Your task to perform on an android device: allow cookies in the chrome app Image 0: 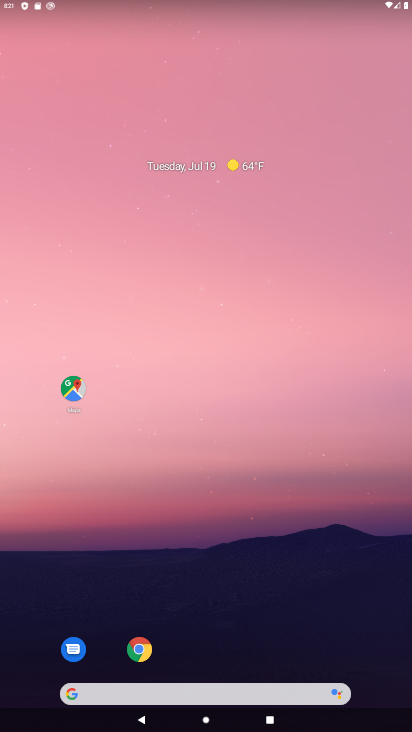
Step 0: click (149, 652)
Your task to perform on an android device: allow cookies in the chrome app Image 1: 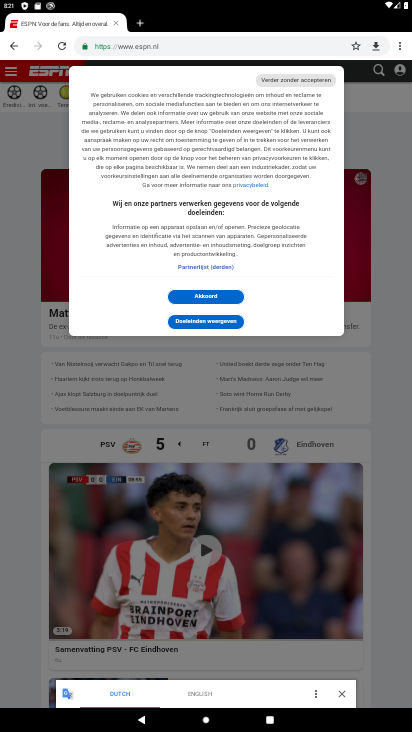
Step 1: click (222, 292)
Your task to perform on an android device: allow cookies in the chrome app Image 2: 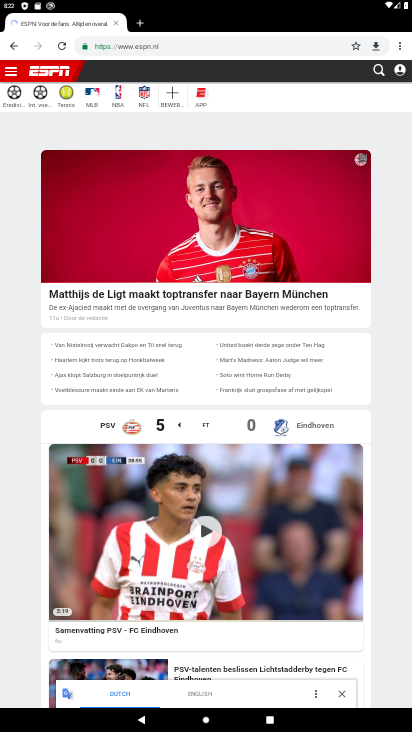
Step 2: click (398, 41)
Your task to perform on an android device: allow cookies in the chrome app Image 3: 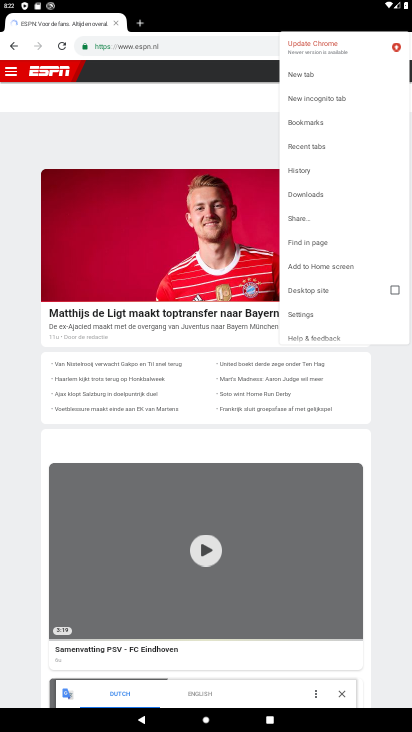
Step 3: click (315, 310)
Your task to perform on an android device: allow cookies in the chrome app Image 4: 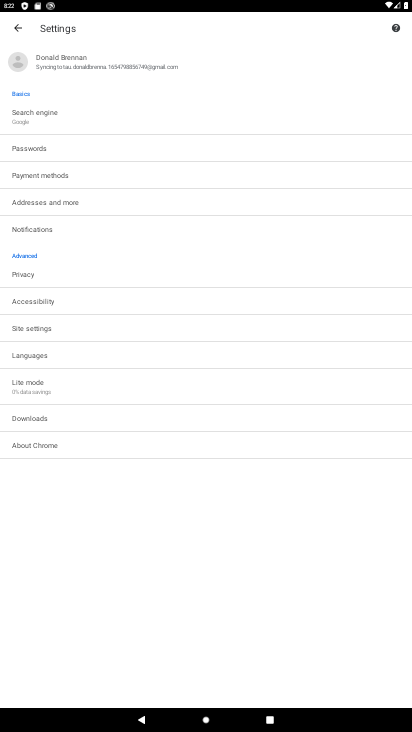
Step 4: click (50, 329)
Your task to perform on an android device: allow cookies in the chrome app Image 5: 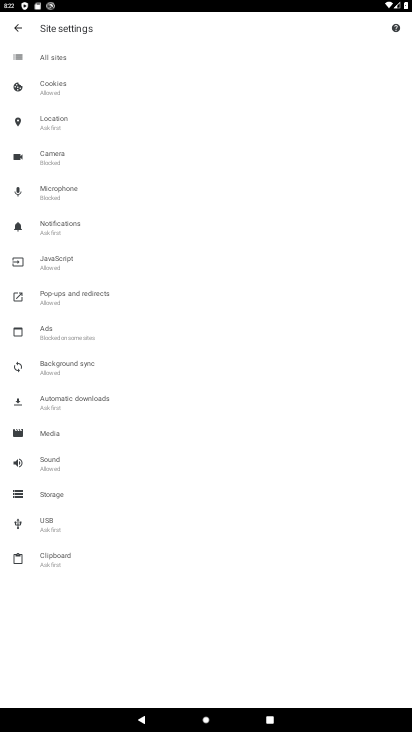
Step 5: click (73, 92)
Your task to perform on an android device: allow cookies in the chrome app Image 6: 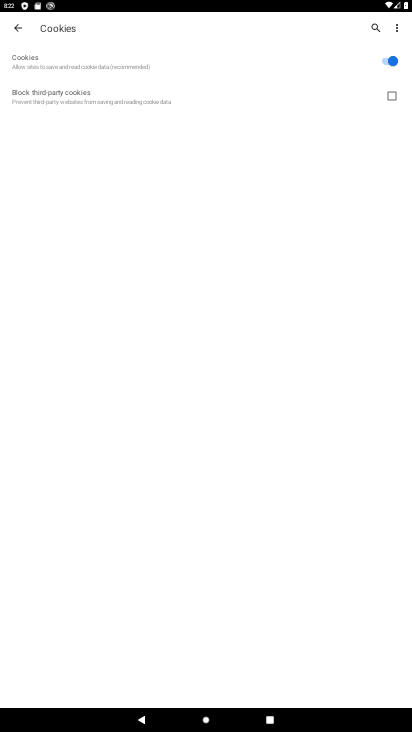
Step 6: task complete